Your task to perform on an android device: What is the recent news? Image 0: 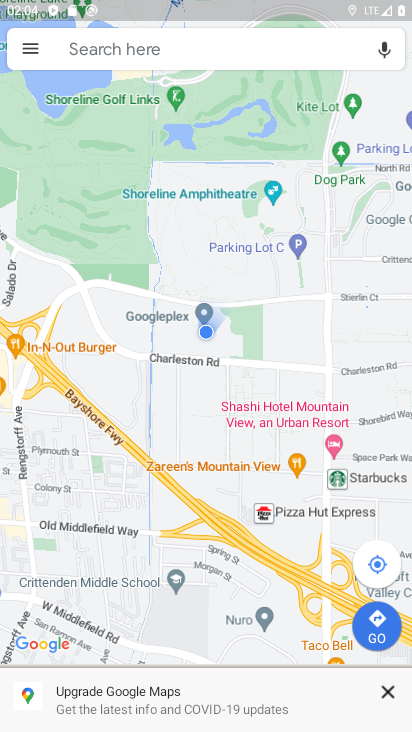
Step 0: press home button
Your task to perform on an android device: What is the recent news? Image 1: 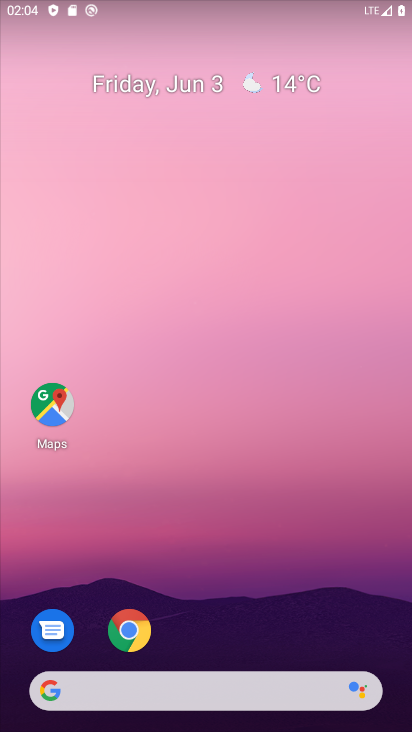
Step 1: task complete